Your task to perform on an android device: refresh tabs in the chrome app Image 0: 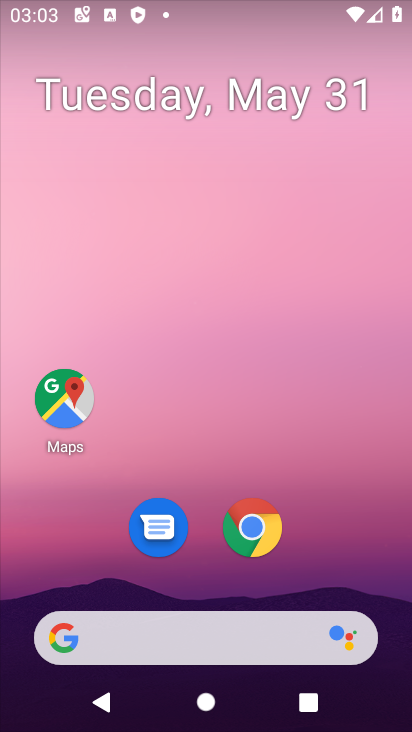
Step 0: click (255, 529)
Your task to perform on an android device: refresh tabs in the chrome app Image 1: 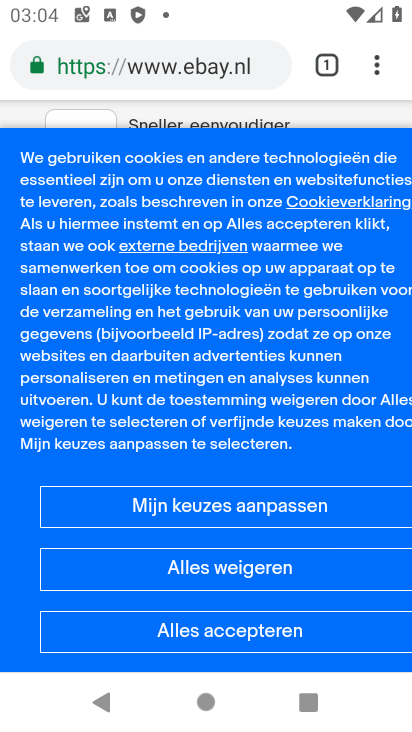
Step 1: click (376, 74)
Your task to perform on an android device: refresh tabs in the chrome app Image 2: 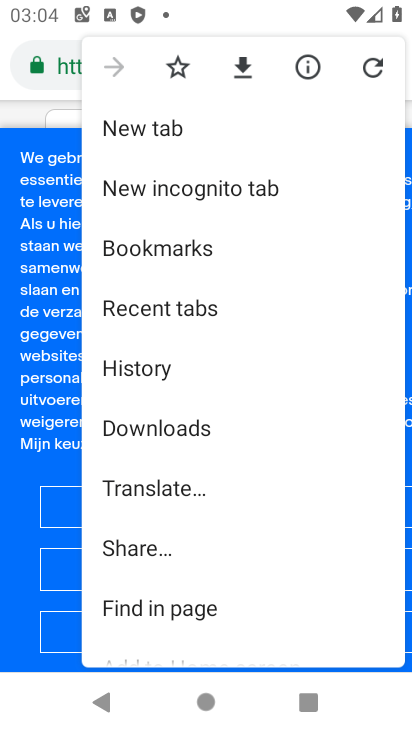
Step 2: click (370, 68)
Your task to perform on an android device: refresh tabs in the chrome app Image 3: 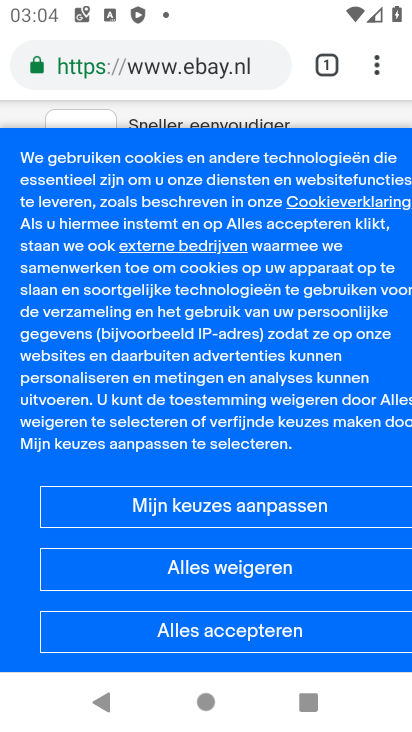
Step 3: task complete